Your task to perform on an android device: Search for flights from Helsinki to Seoul Image 0: 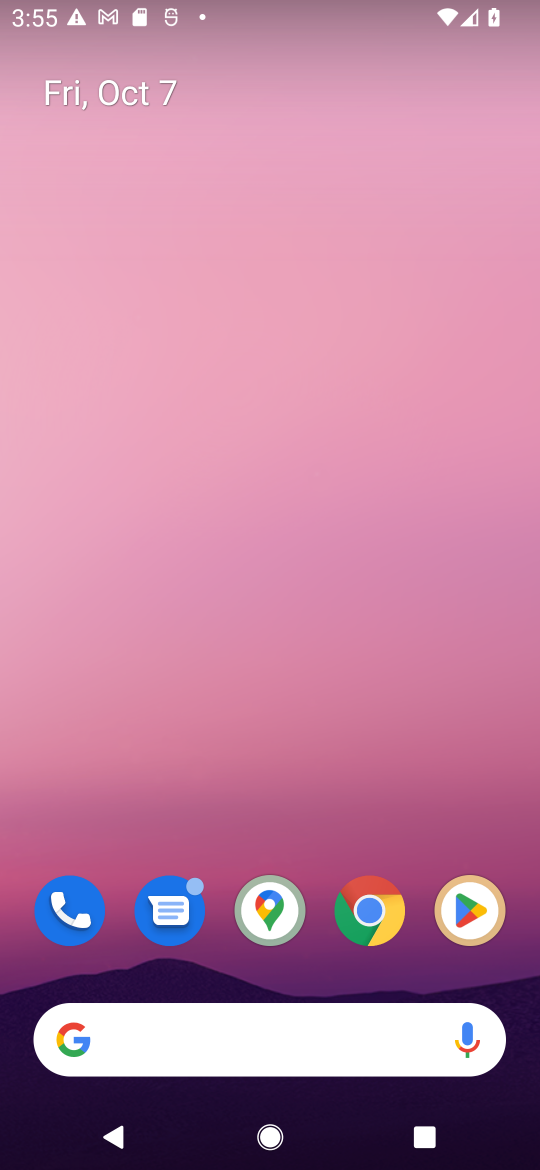
Step 0: drag from (238, 703) to (236, 421)
Your task to perform on an android device: Search for flights from Helsinki to Seoul Image 1: 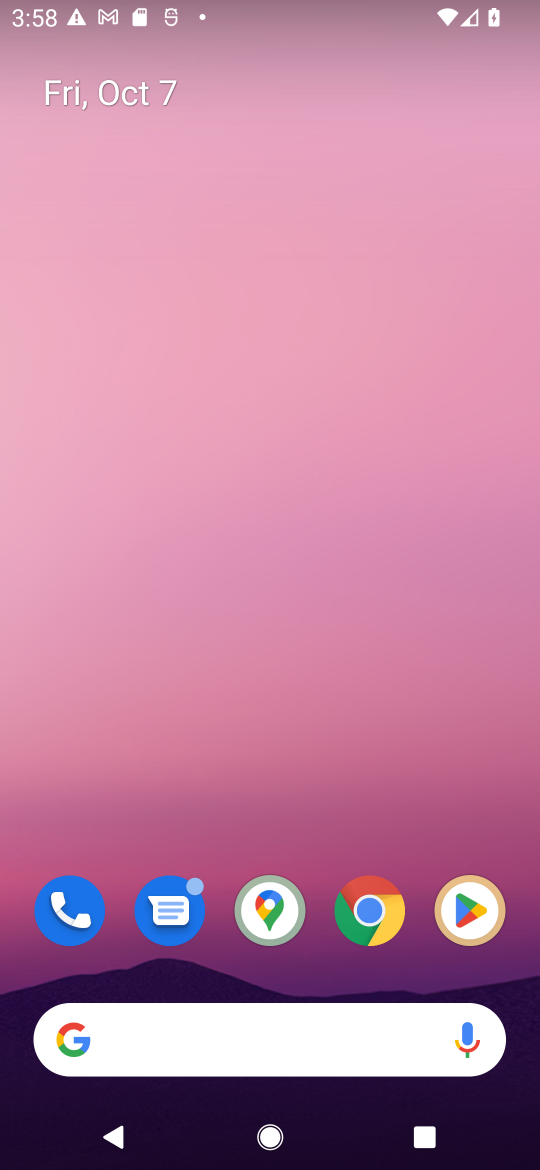
Step 1: click (238, 983)
Your task to perform on an android device: Search for flights from Helsinki to Seoul Image 2: 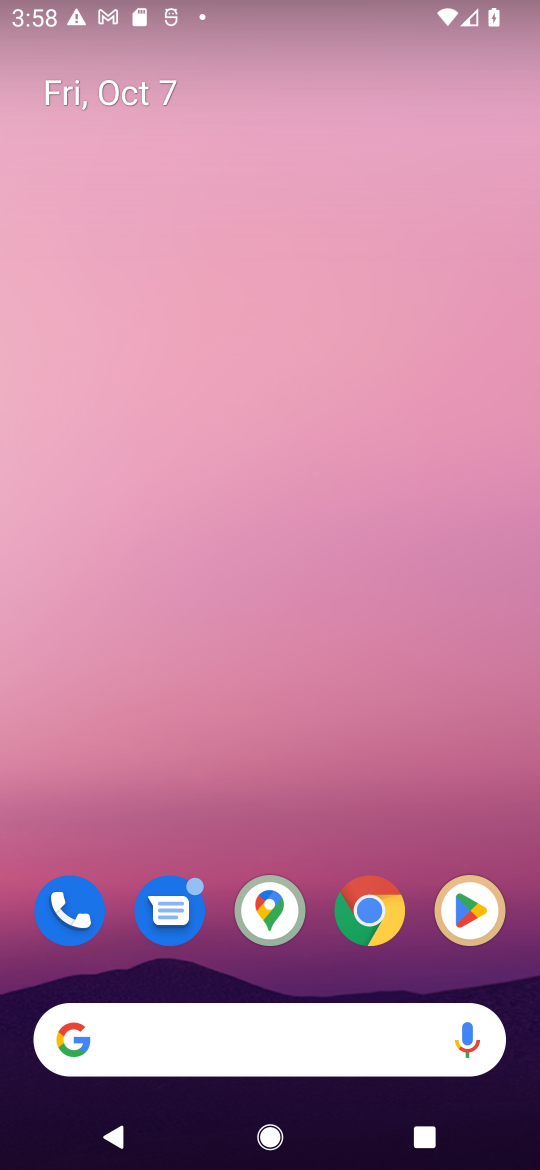
Step 2: click (204, 1014)
Your task to perform on an android device: Search for flights from Helsinki to Seoul Image 3: 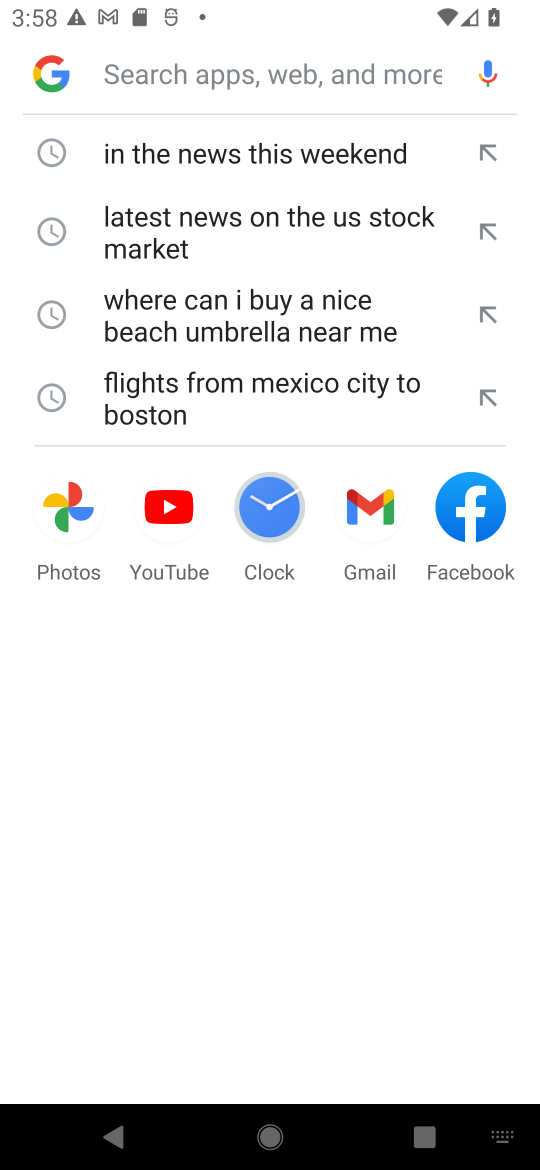
Step 3: type "flights from Helsinki to Seoul"
Your task to perform on an android device: Search for flights from Helsinki to Seoul Image 4: 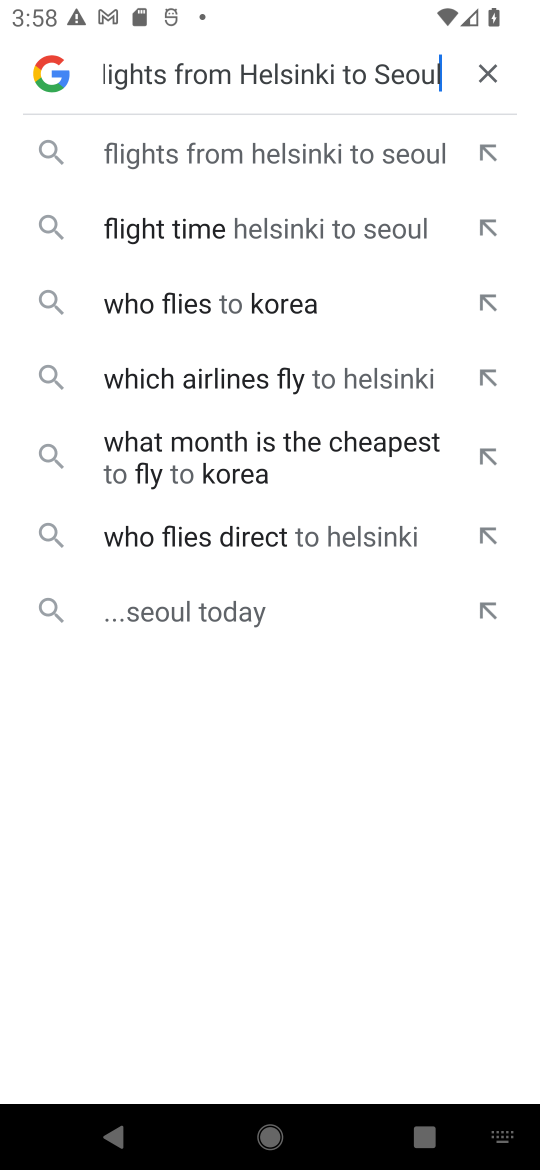
Step 4: click (400, 156)
Your task to perform on an android device: Search for flights from Helsinki to Seoul Image 5: 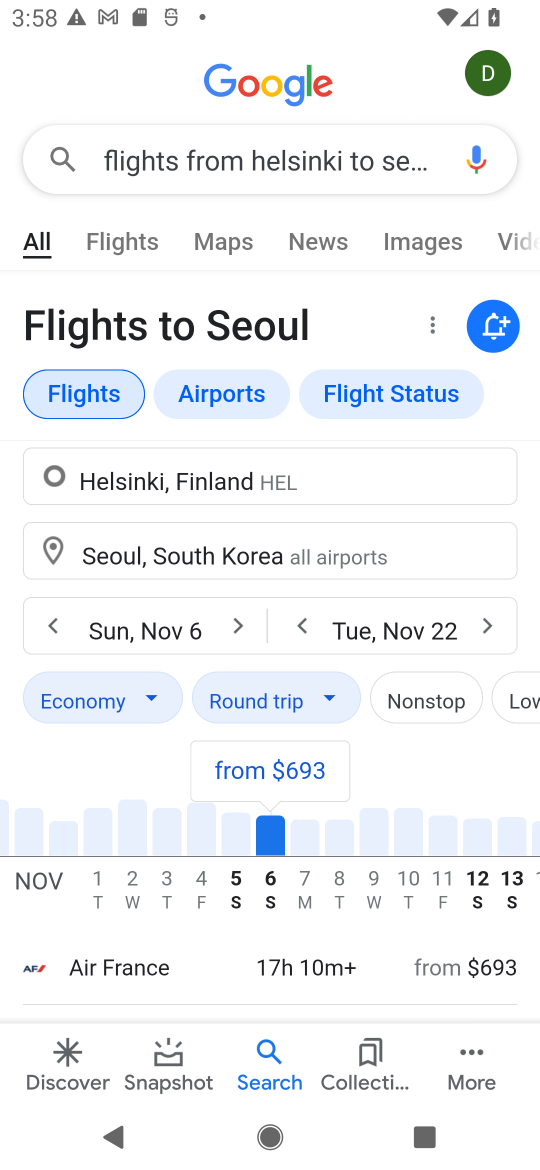
Step 5: click (307, 282)
Your task to perform on an android device: Search for flights from Helsinki to Seoul Image 6: 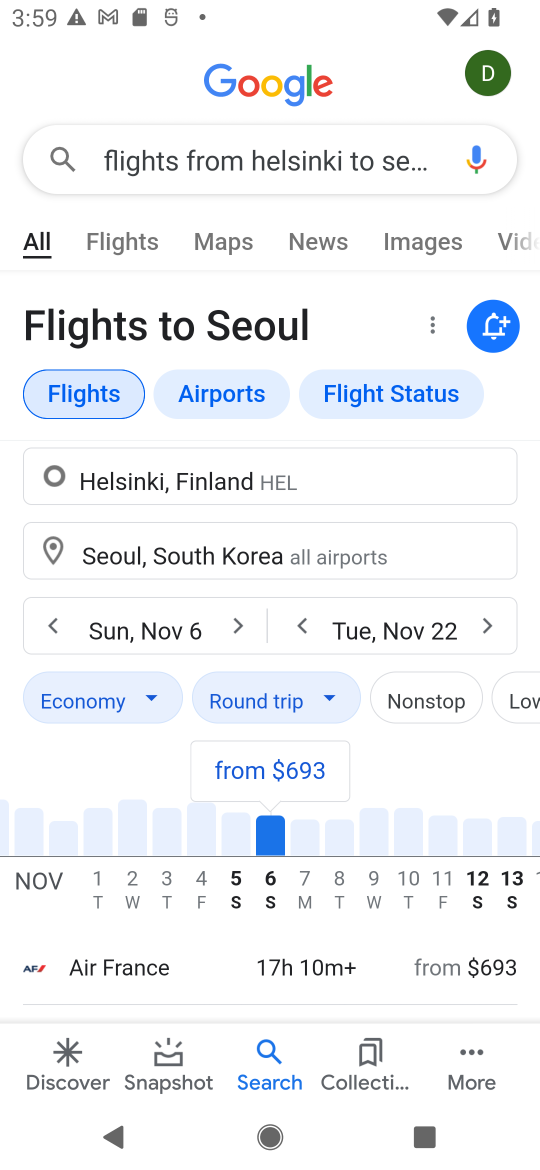
Step 6: task complete